Your task to perform on an android device: visit the assistant section in the google photos Image 0: 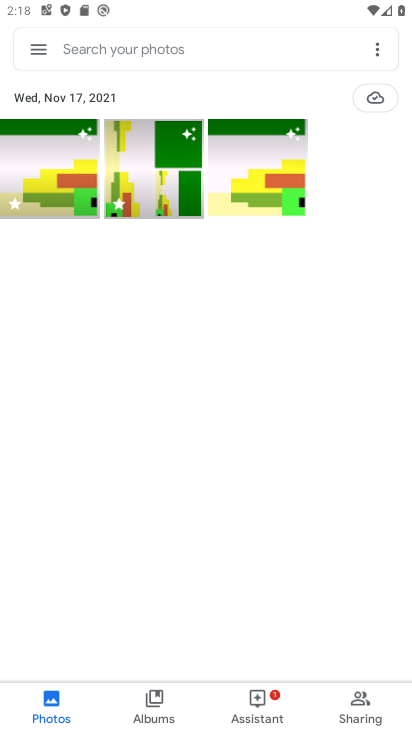
Step 0: click (254, 704)
Your task to perform on an android device: visit the assistant section in the google photos Image 1: 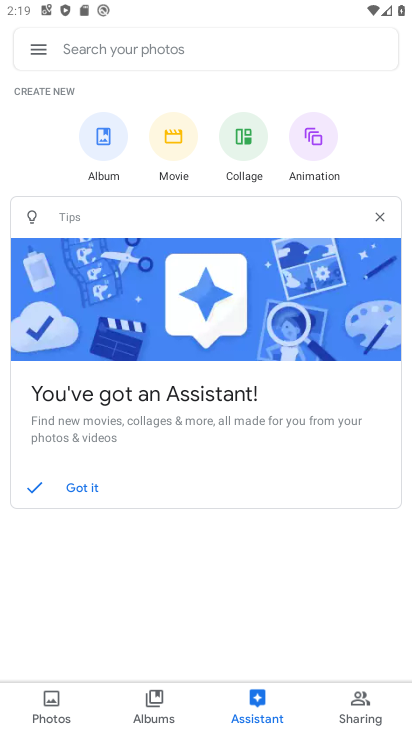
Step 1: task complete